Your task to perform on an android device: Open internet settings Image 0: 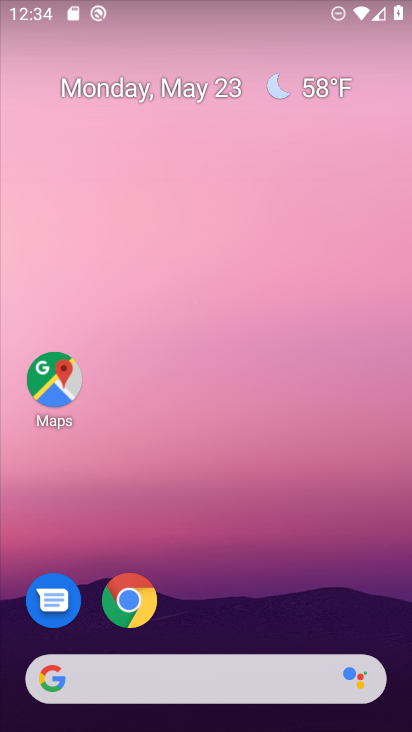
Step 0: drag from (266, 610) to (225, 38)
Your task to perform on an android device: Open internet settings Image 1: 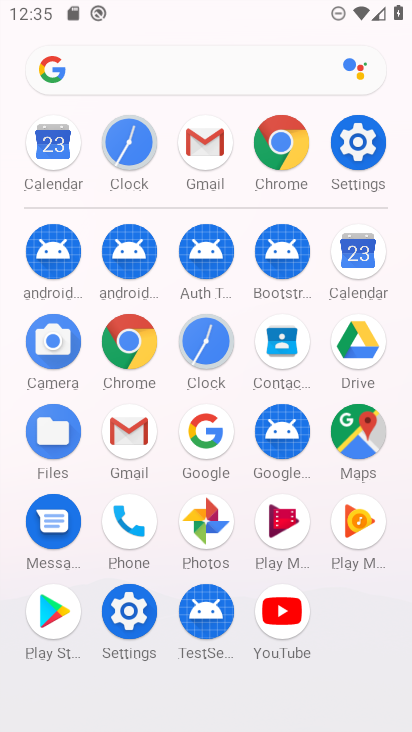
Step 1: click (349, 134)
Your task to perform on an android device: Open internet settings Image 2: 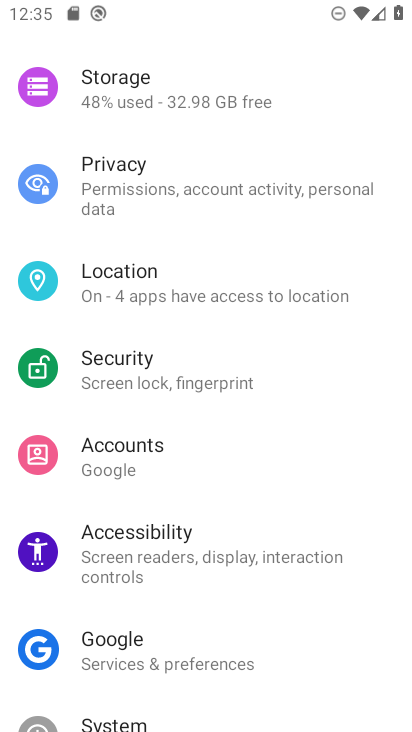
Step 2: drag from (176, 192) to (255, 619)
Your task to perform on an android device: Open internet settings Image 3: 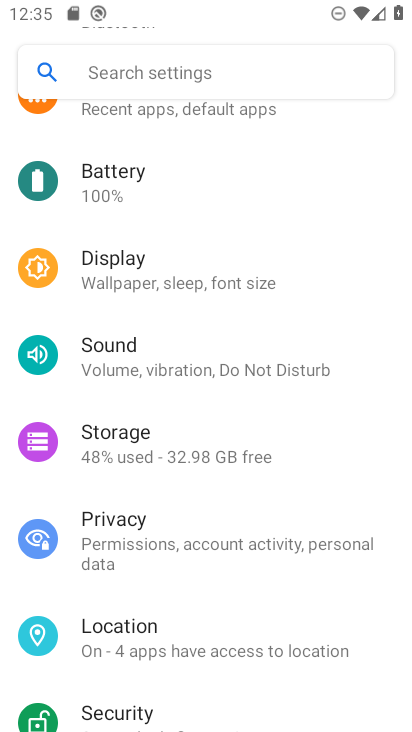
Step 3: drag from (241, 211) to (311, 563)
Your task to perform on an android device: Open internet settings Image 4: 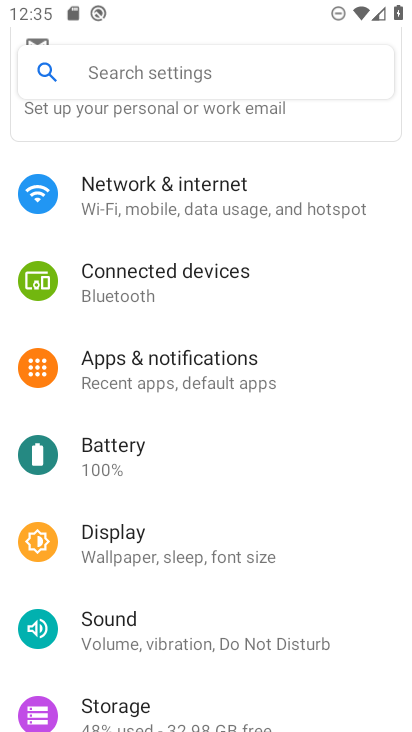
Step 4: drag from (253, 215) to (252, 642)
Your task to perform on an android device: Open internet settings Image 5: 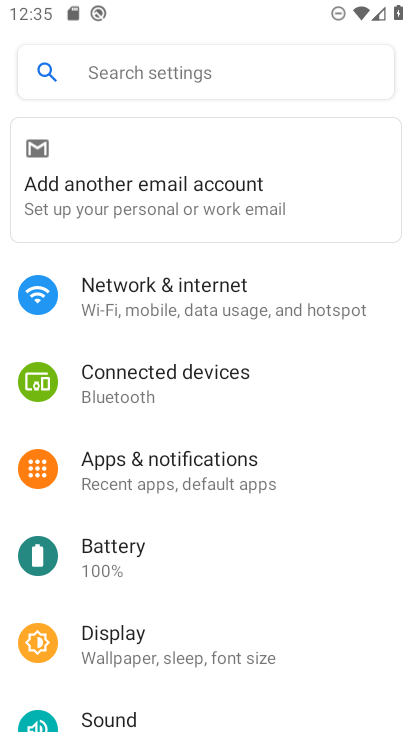
Step 5: click (256, 303)
Your task to perform on an android device: Open internet settings Image 6: 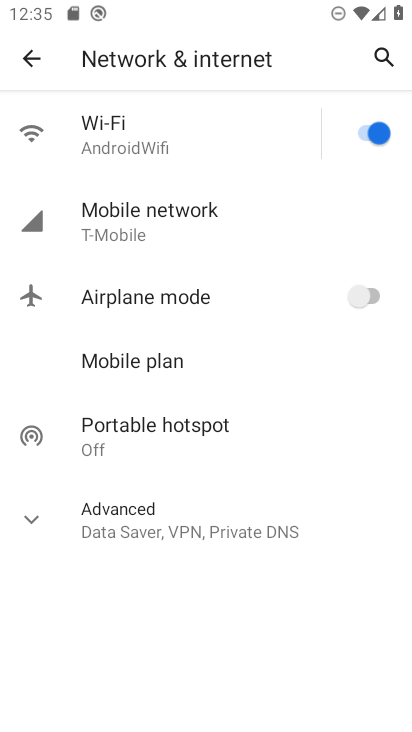
Step 6: task complete